Your task to perform on an android device: turn off location Image 0: 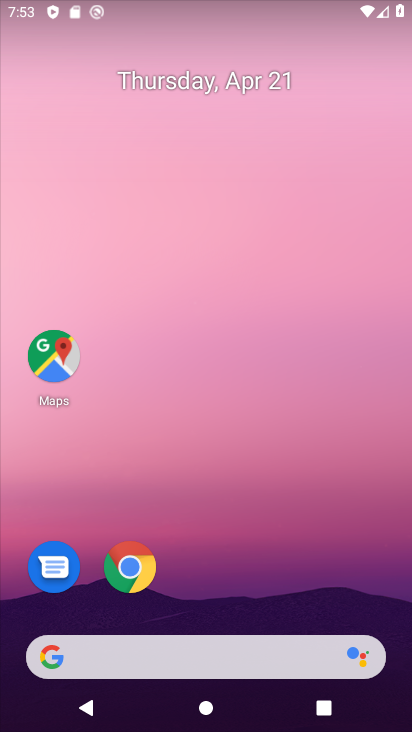
Step 0: drag from (219, 487) to (223, 99)
Your task to perform on an android device: turn off location Image 1: 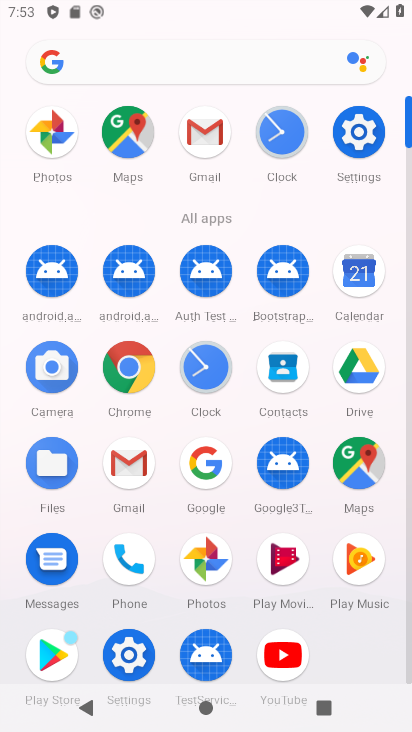
Step 1: click (364, 150)
Your task to perform on an android device: turn off location Image 2: 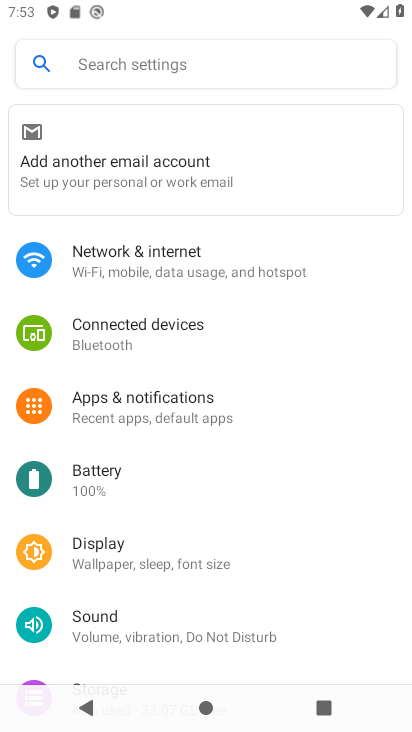
Step 2: drag from (182, 612) to (224, 286)
Your task to perform on an android device: turn off location Image 3: 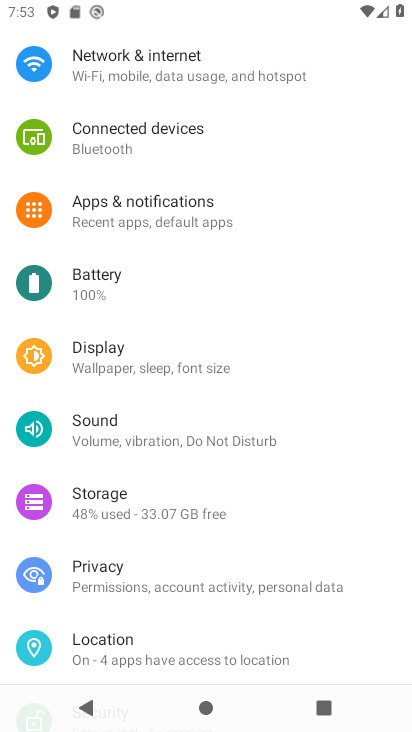
Step 3: drag from (184, 584) to (205, 270)
Your task to perform on an android device: turn off location Image 4: 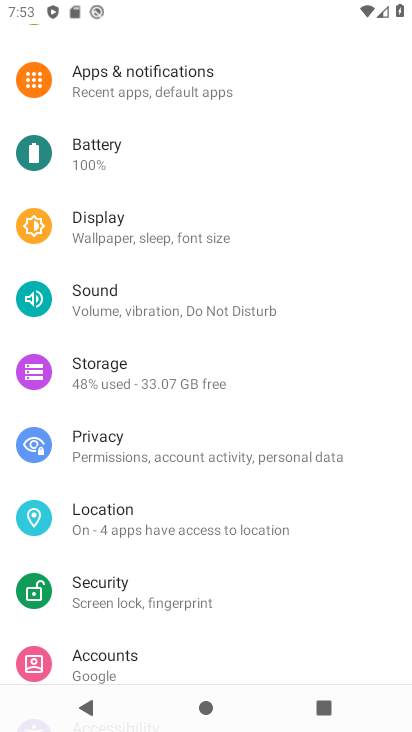
Step 4: click (135, 522)
Your task to perform on an android device: turn off location Image 5: 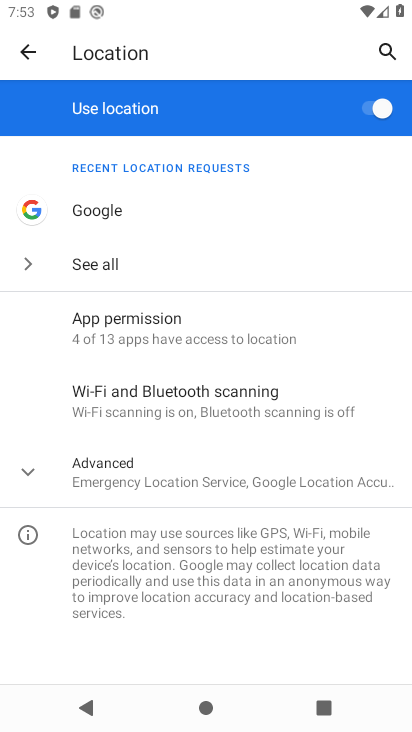
Step 5: click (362, 106)
Your task to perform on an android device: turn off location Image 6: 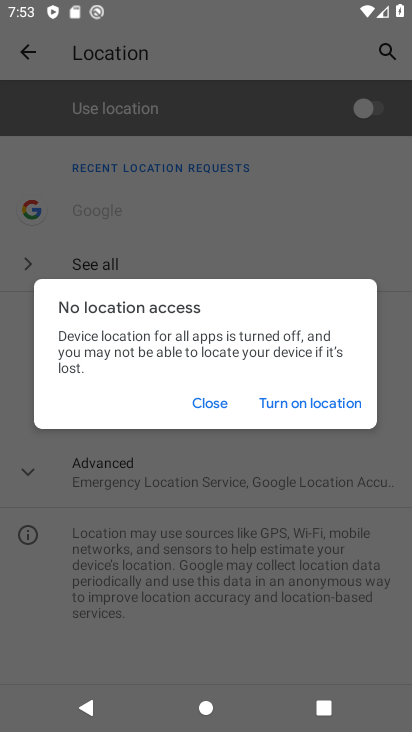
Step 6: task complete